Your task to perform on an android device: Search for sushi restaurants on Maps Image 0: 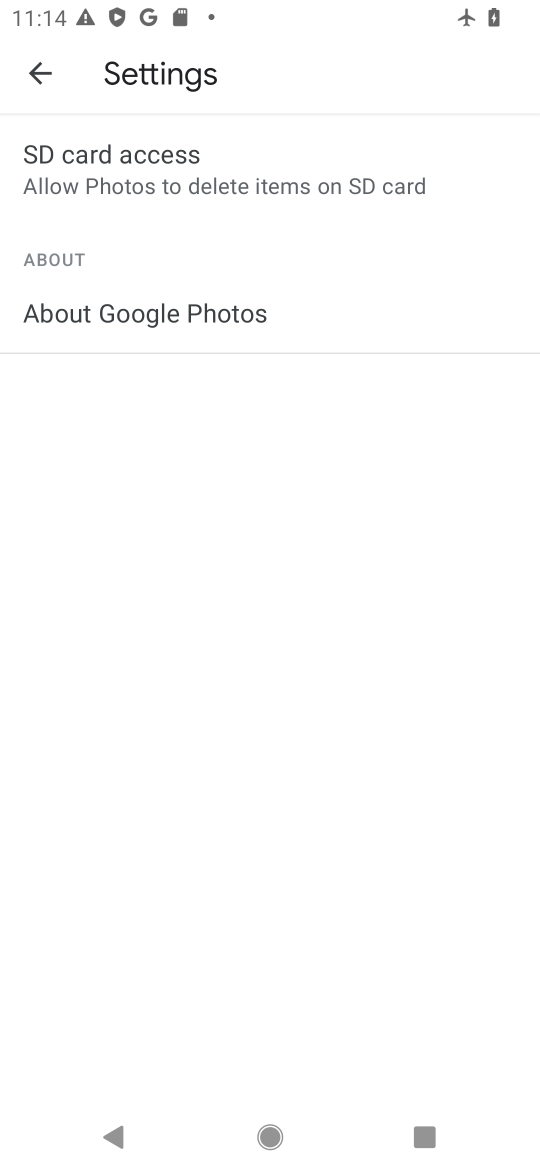
Step 0: press home button
Your task to perform on an android device: Search for sushi restaurants on Maps Image 1: 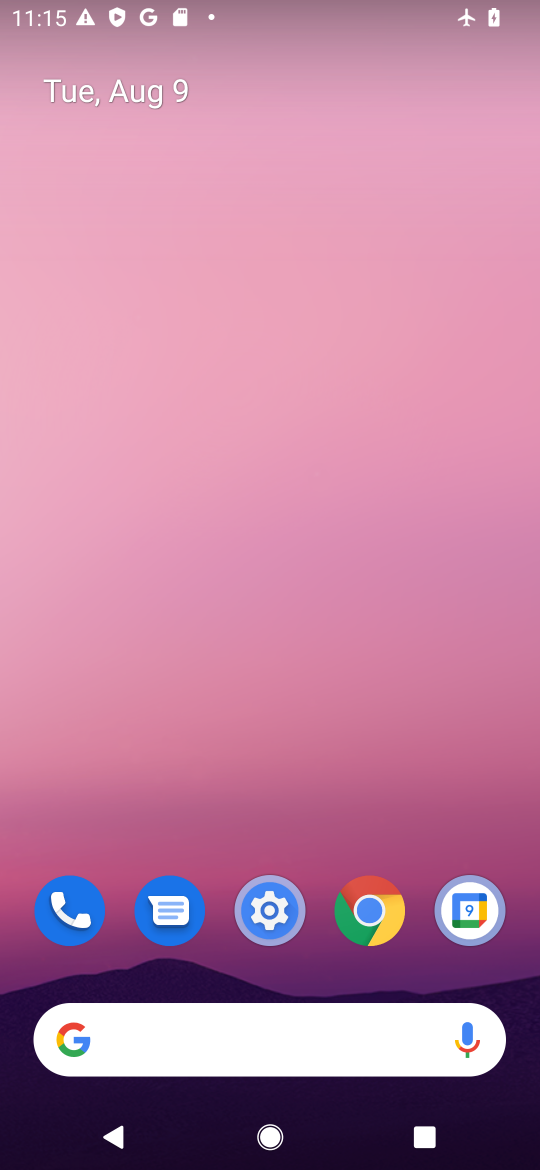
Step 1: drag from (5, 1166) to (306, 238)
Your task to perform on an android device: Search for sushi restaurants on Maps Image 2: 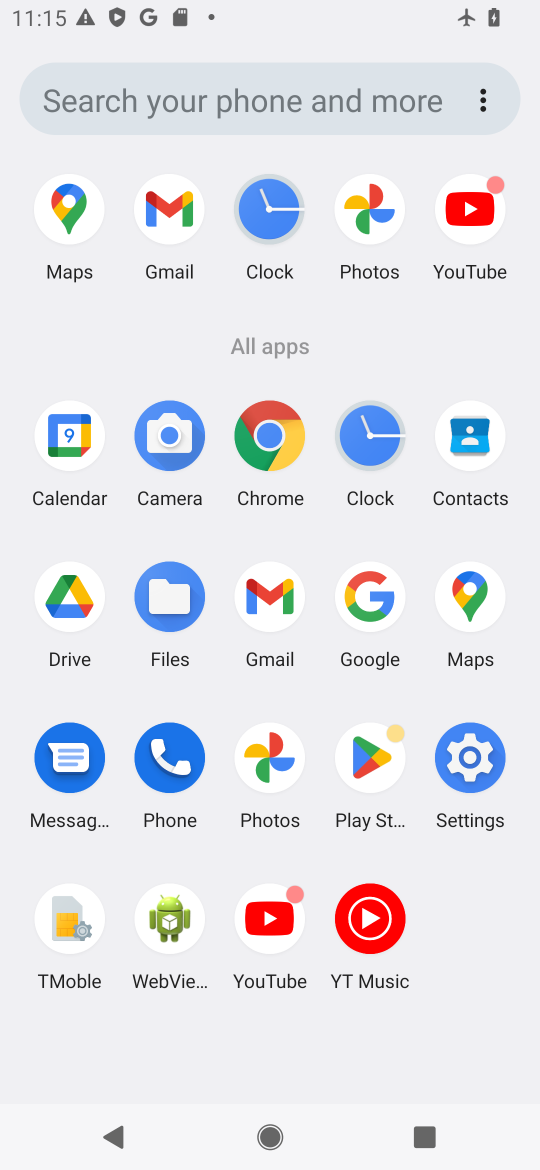
Step 2: click (76, 206)
Your task to perform on an android device: Search for sushi restaurants on Maps Image 3: 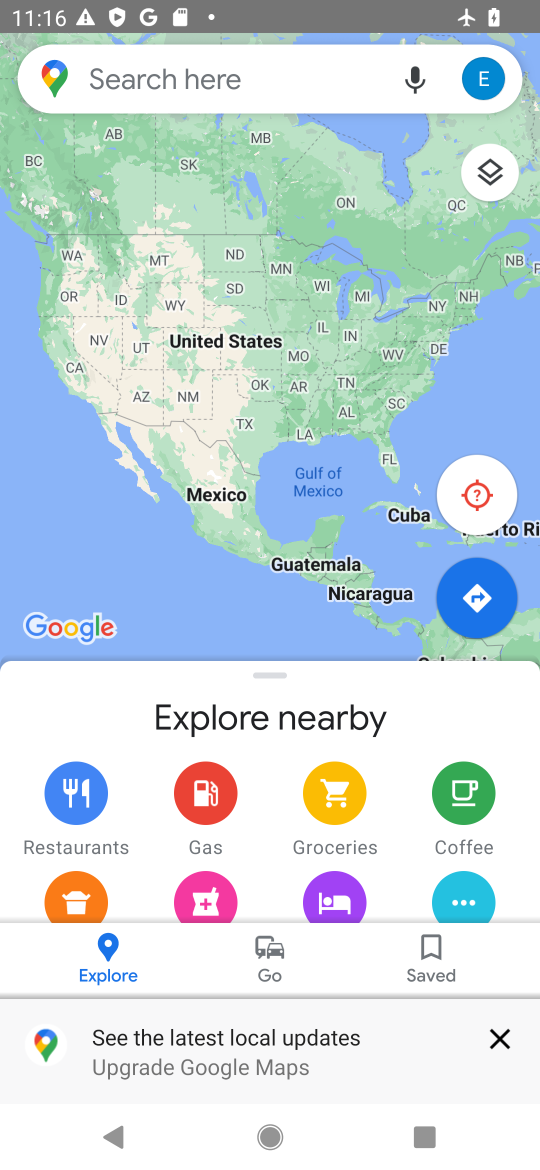
Step 3: click (139, 60)
Your task to perform on an android device: Search for sushi restaurants on Maps Image 4: 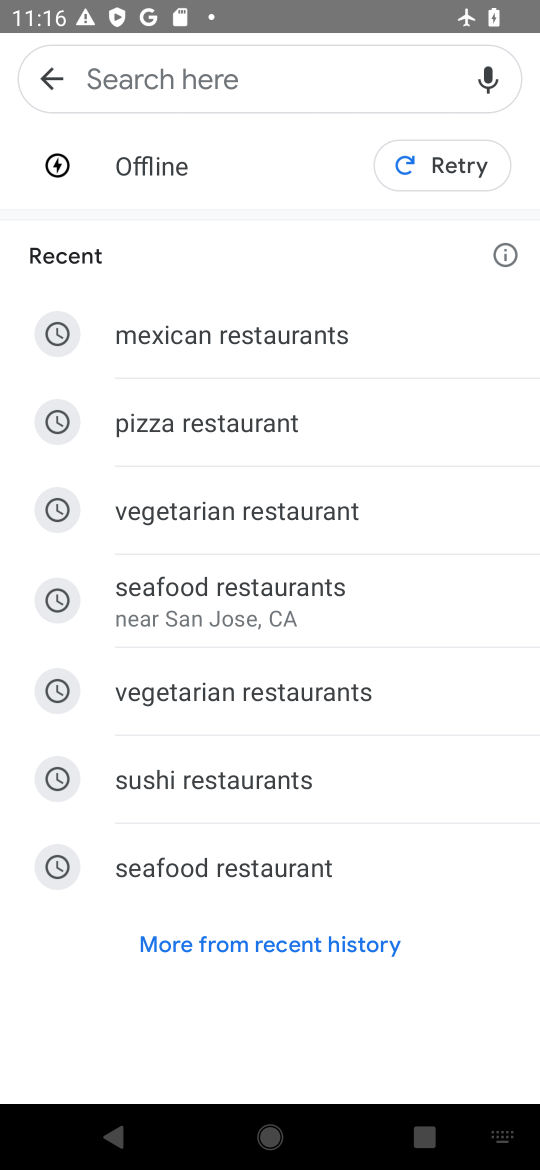
Step 4: click (176, 795)
Your task to perform on an android device: Search for sushi restaurants on Maps Image 5: 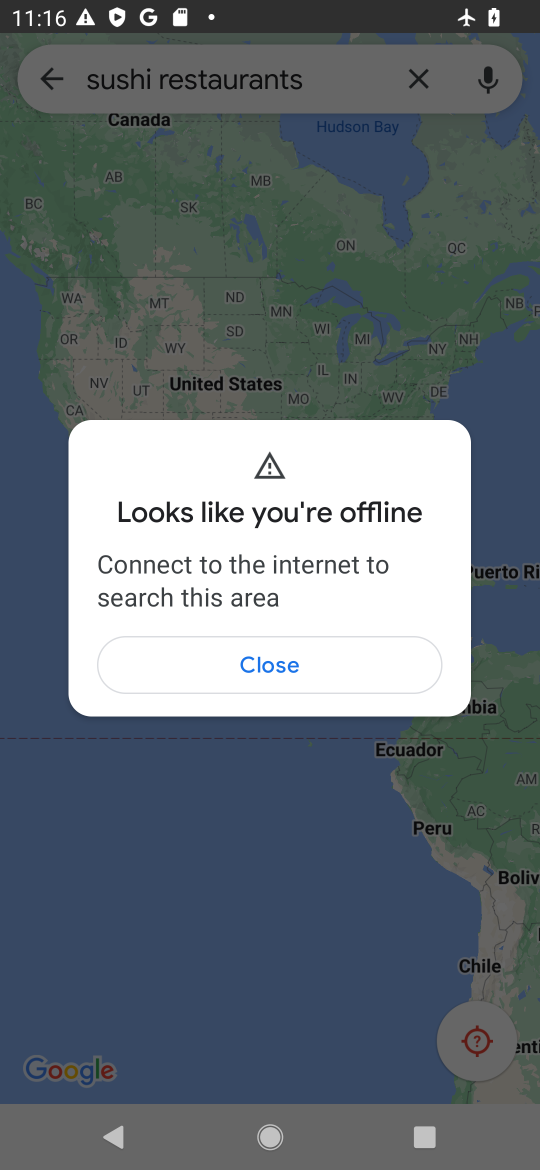
Step 5: task complete